Your task to perform on an android device: Open calendar and show me the second week of next month Image 0: 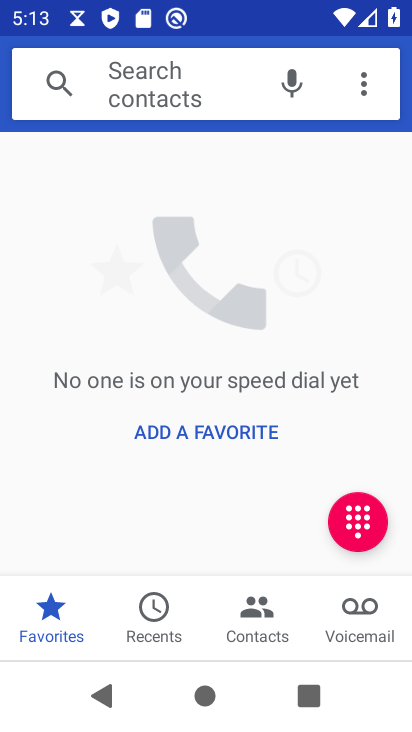
Step 0: press back button
Your task to perform on an android device: Open calendar and show me the second week of next month Image 1: 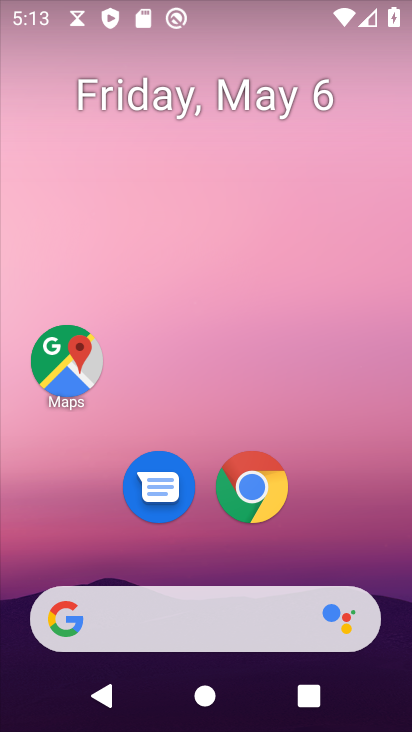
Step 1: drag from (330, 527) to (233, 12)
Your task to perform on an android device: Open calendar and show me the second week of next month Image 2: 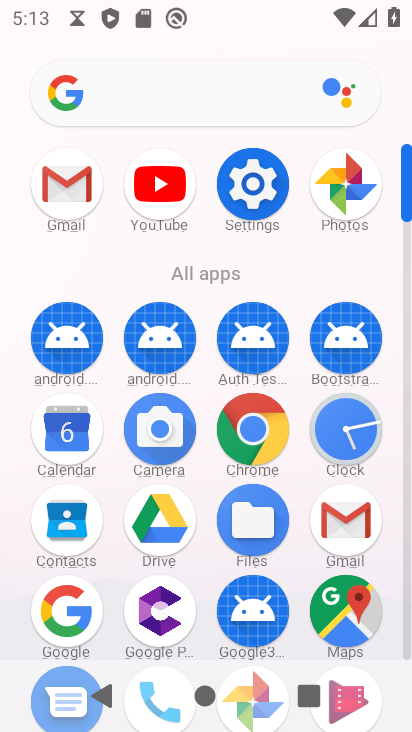
Step 2: click (71, 428)
Your task to perform on an android device: Open calendar and show me the second week of next month Image 3: 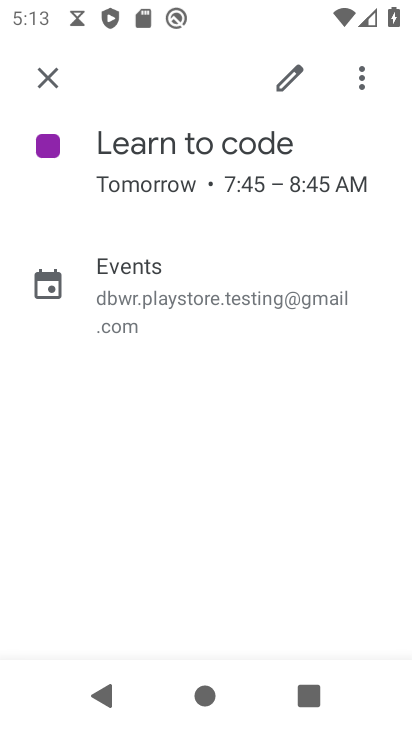
Step 3: click (44, 81)
Your task to perform on an android device: Open calendar and show me the second week of next month Image 4: 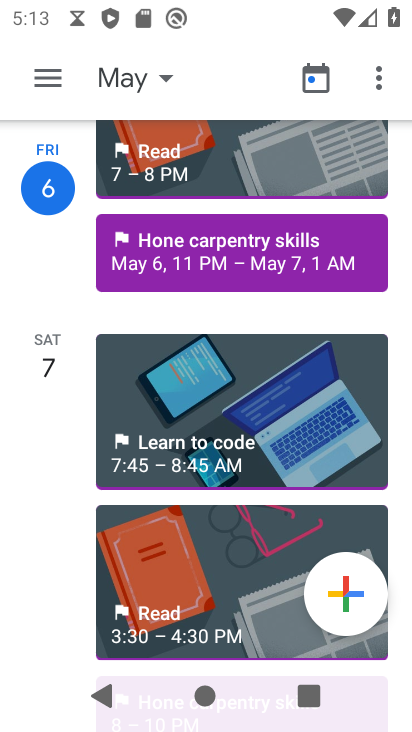
Step 4: click (150, 82)
Your task to perform on an android device: Open calendar and show me the second week of next month Image 5: 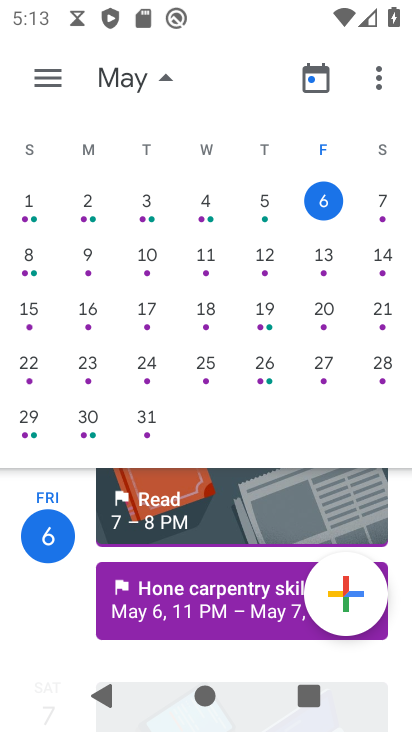
Step 5: drag from (367, 301) to (13, 325)
Your task to perform on an android device: Open calendar and show me the second week of next month Image 6: 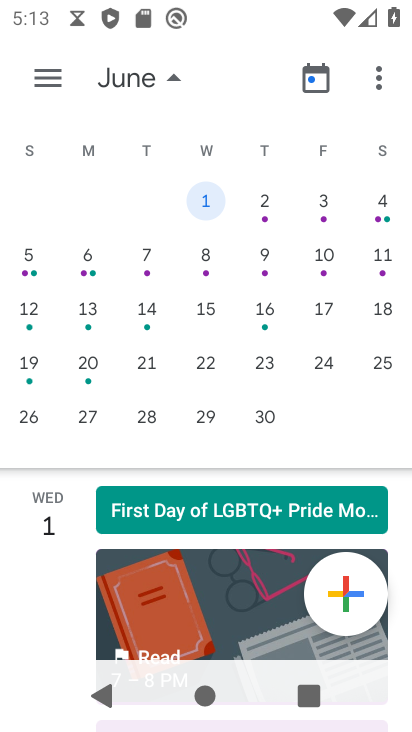
Step 6: click (91, 310)
Your task to perform on an android device: Open calendar and show me the second week of next month Image 7: 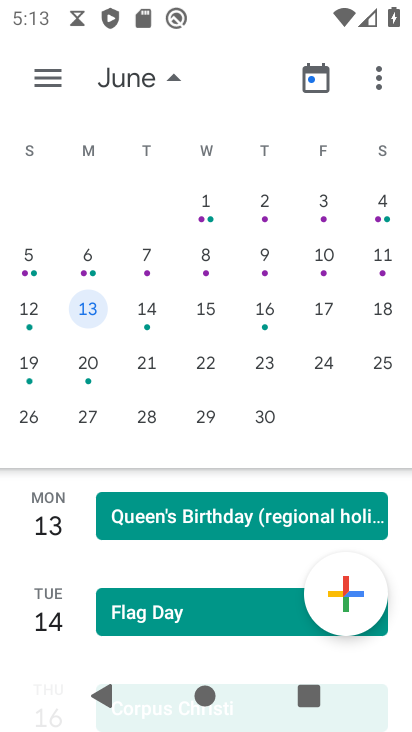
Step 7: click (53, 70)
Your task to perform on an android device: Open calendar and show me the second week of next month Image 8: 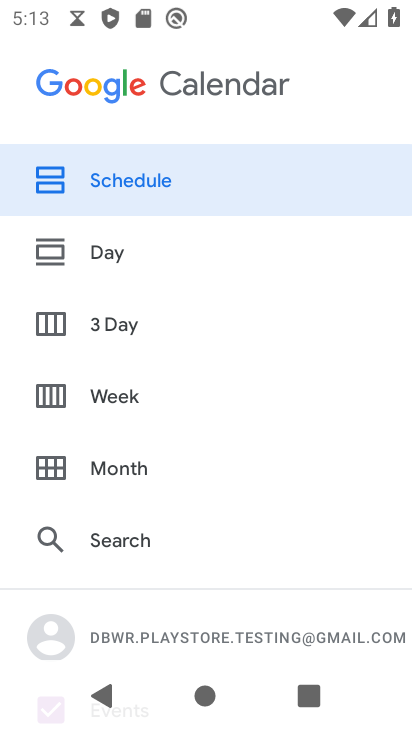
Step 8: click (125, 395)
Your task to perform on an android device: Open calendar and show me the second week of next month Image 9: 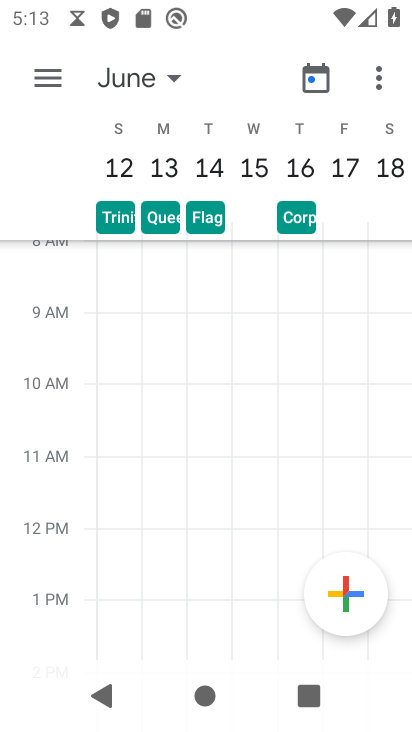
Step 9: task complete